Your task to perform on an android device: see creations saved in the google photos Image 0: 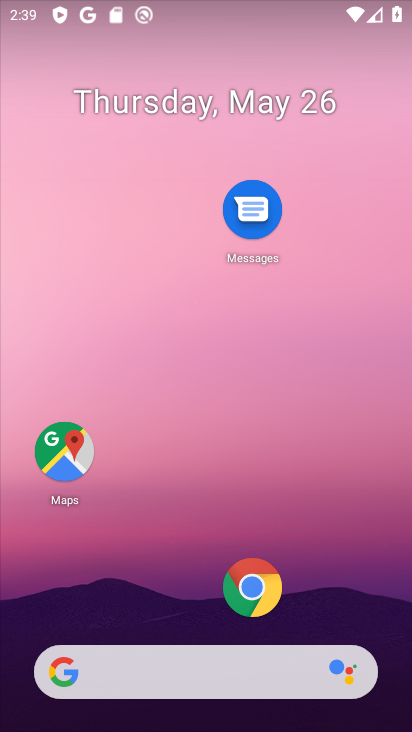
Step 0: drag from (170, 572) to (228, 63)
Your task to perform on an android device: see creations saved in the google photos Image 1: 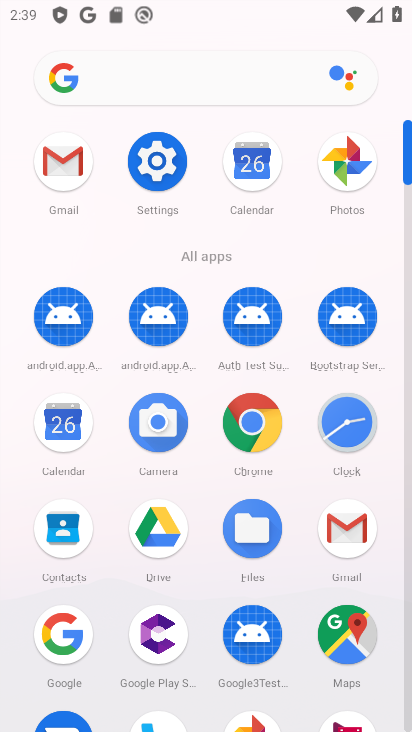
Step 1: click (343, 162)
Your task to perform on an android device: see creations saved in the google photos Image 2: 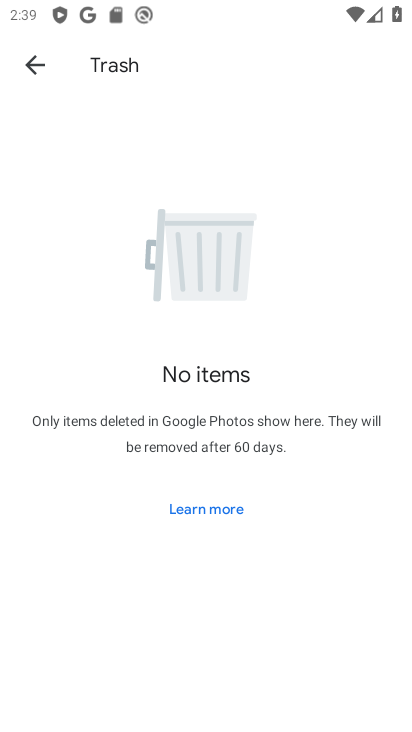
Step 2: click (36, 59)
Your task to perform on an android device: see creations saved in the google photos Image 3: 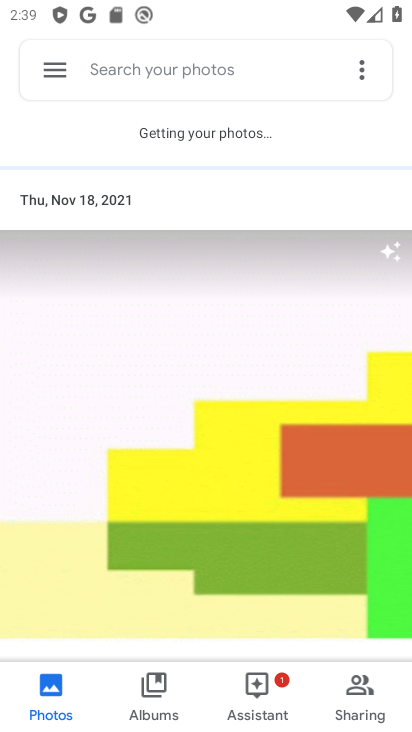
Step 3: click (143, 62)
Your task to perform on an android device: see creations saved in the google photos Image 4: 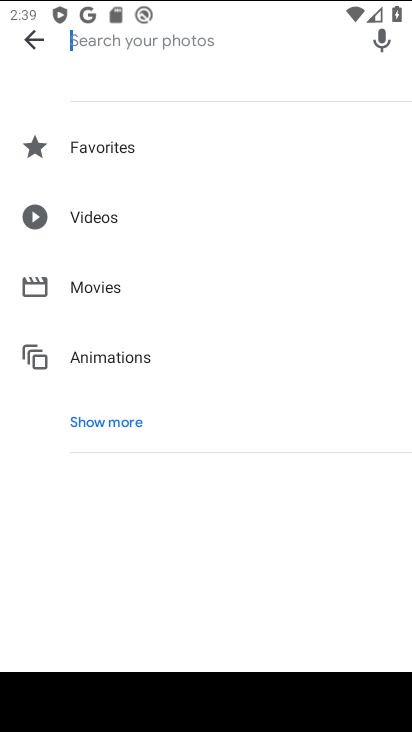
Step 4: type "creations"
Your task to perform on an android device: see creations saved in the google photos Image 5: 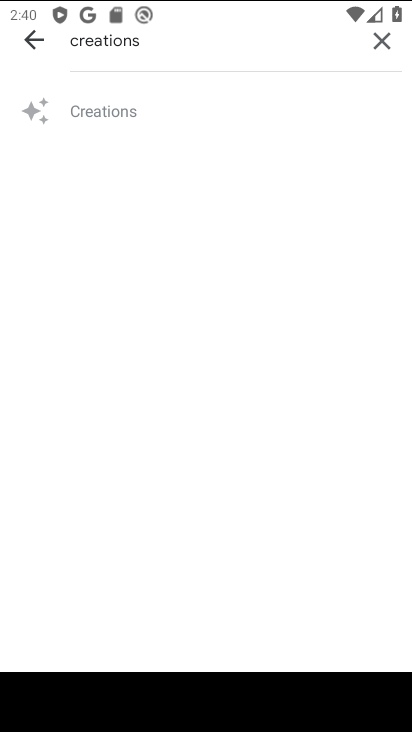
Step 5: click (111, 107)
Your task to perform on an android device: see creations saved in the google photos Image 6: 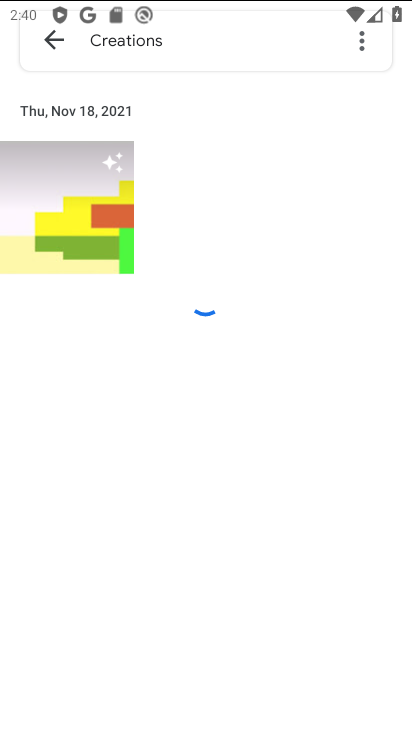
Step 6: task complete